Your task to perform on an android device: Turn off the flashlight Image 0: 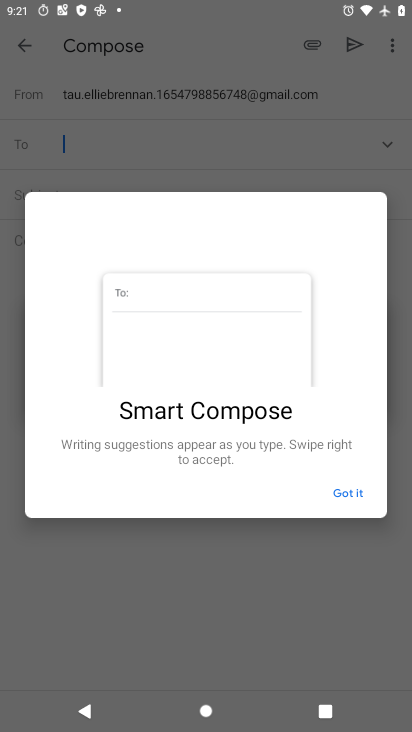
Step 0: press home button
Your task to perform on an android device: Turn off the flashlight Image 1: 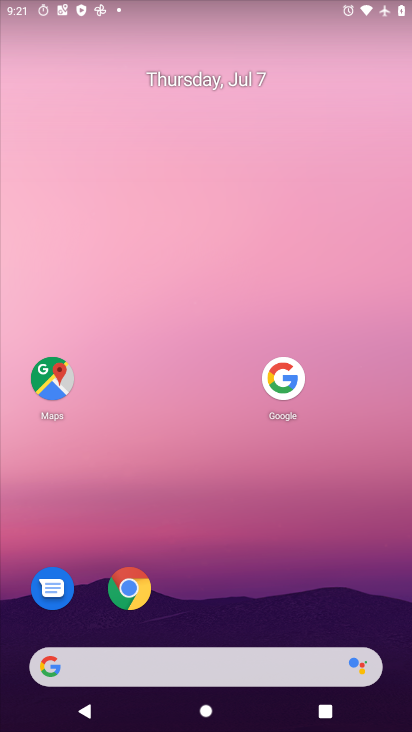
Step 1: click (215, 461)
Your task to perform on an android device: Turn off the flashlight Image 2: 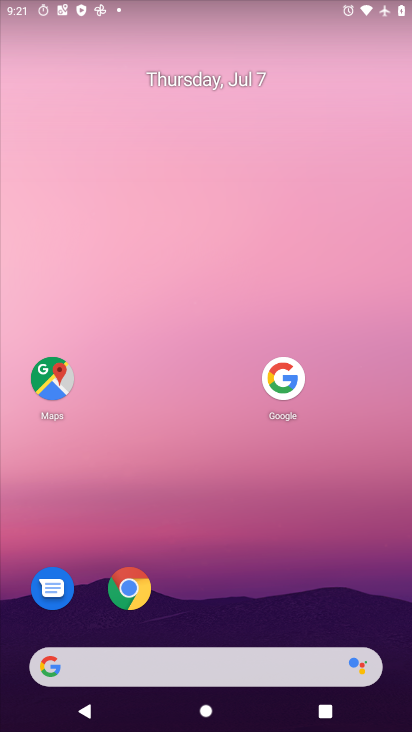
Step 2: task complete